Your task to perform on an android device: open app "Adobe Acrobat Reader: Edit PDF" (install if not already installed), go to login, and select forgot password Image 0: 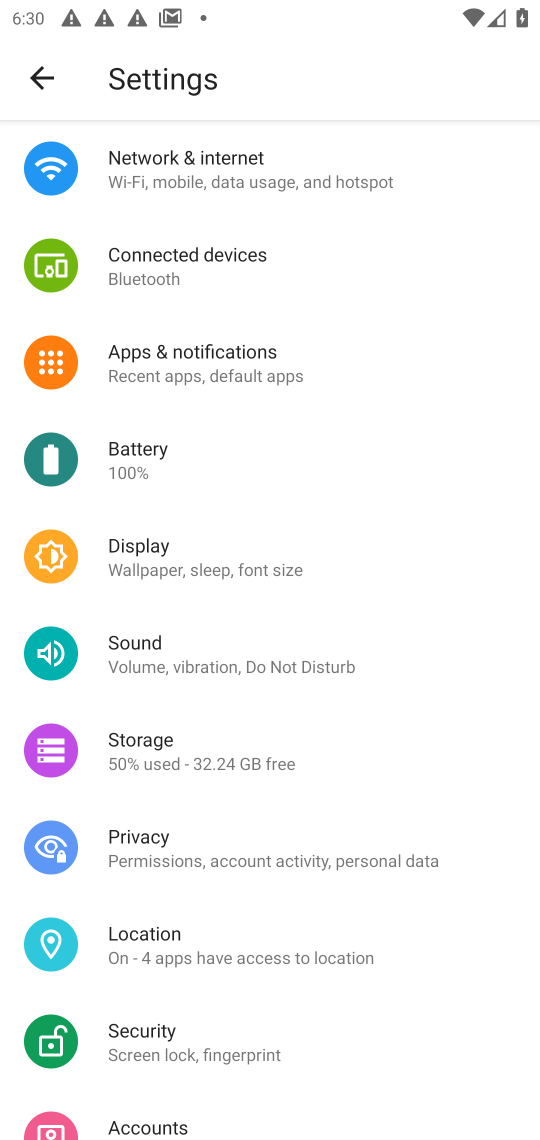
Step 0: press home button
Your task to perform on an android device: open app "Adobe Acrobat Reader: Edit PDF" (install if not already installed), go to login, and select forgot password Image 1: 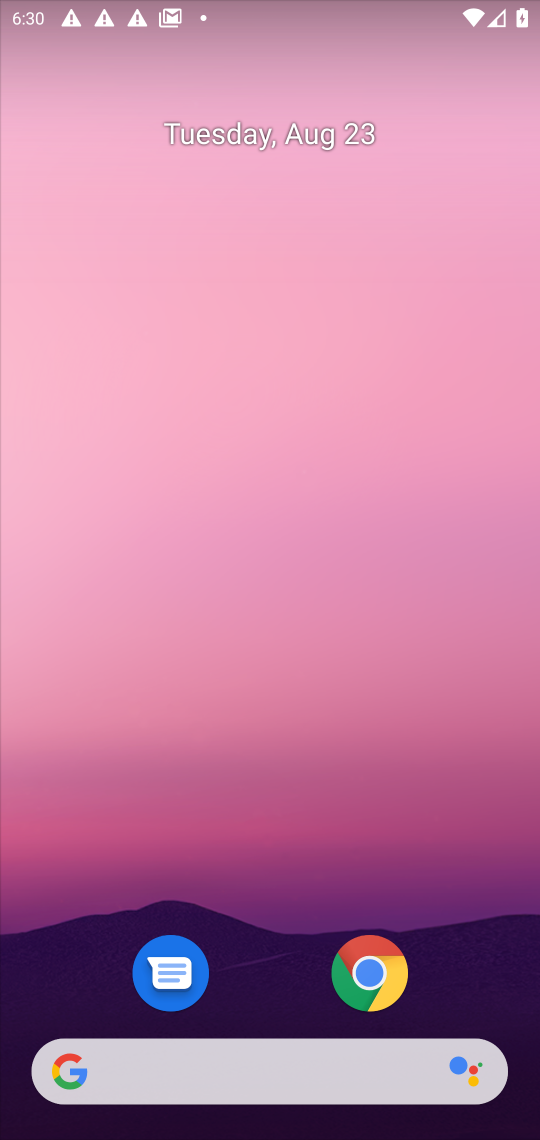
Step 1: drag from (190, 985) to (315, 27)
Your task to perform on an android device: open app "Adobe Acrobat Reader: Edit PDF" (install if not already installed), go to login, and select forgot password Image 2: 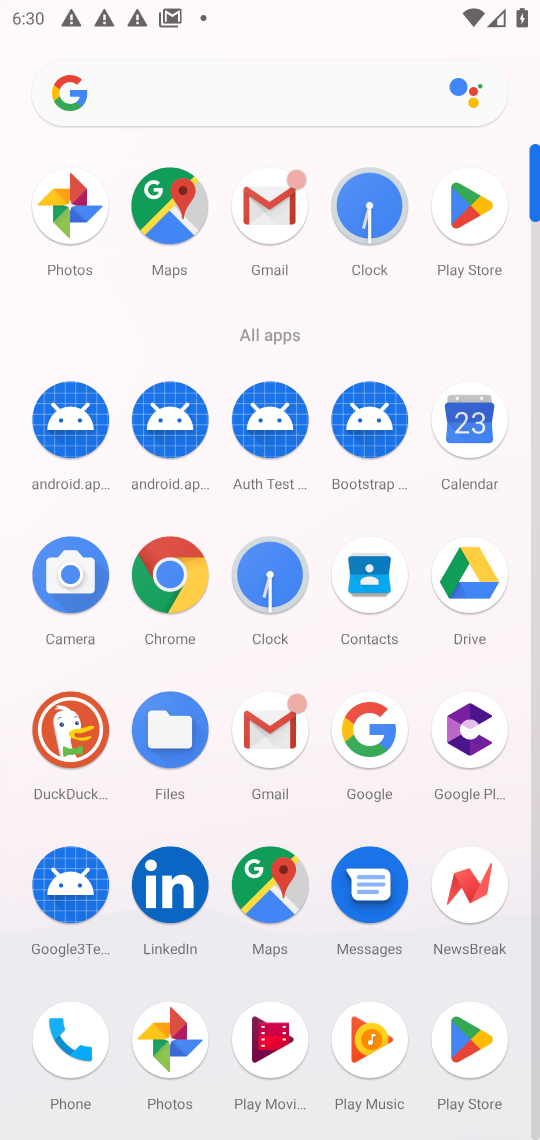
Step 2: click (472, 206)
Your task to perform on an android device: open app "Adobe Acrobat Reader: Edit PDF" (install if not already installed), go to login, and select forgot password Image 3: 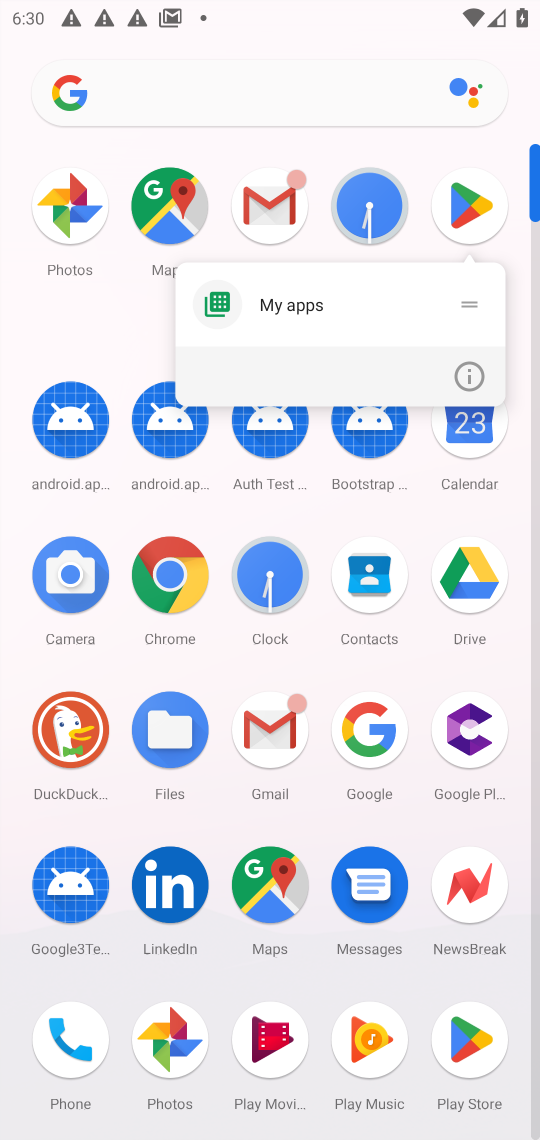
Step 3: click (472, 201)
Your task to perform on an android device: open app "Adobe Acrobat Reader: Edit PDF" (install if not already installed), go to login, and select forgot password Image 4: 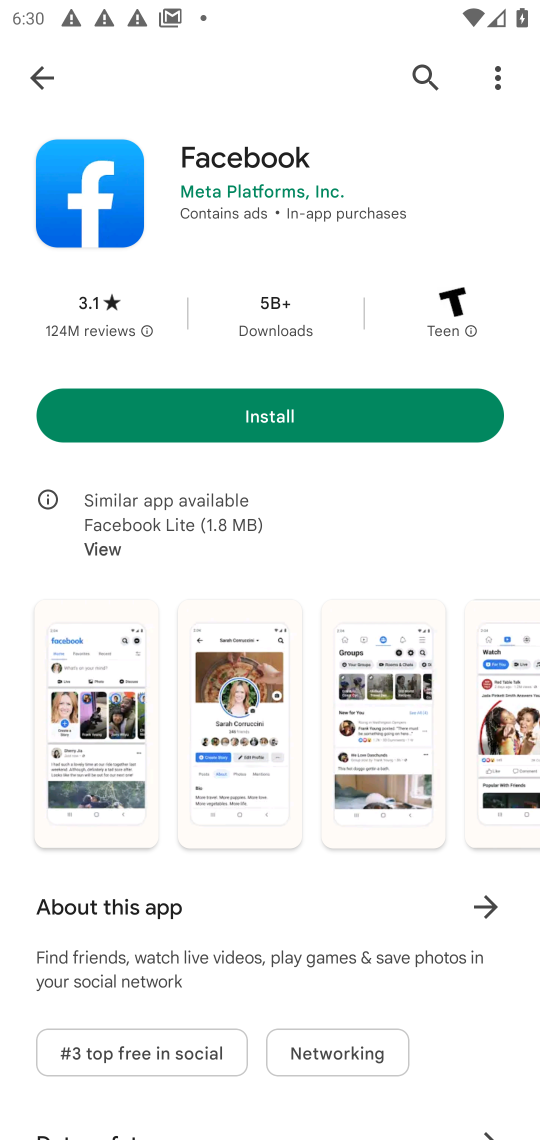
Step 4: click (411, 59)
Your task to perform on an android device: open app "Adobe Acrobat Reader: Edit PDF" (install if not already installed), go to login, and select forgot password Image 5: 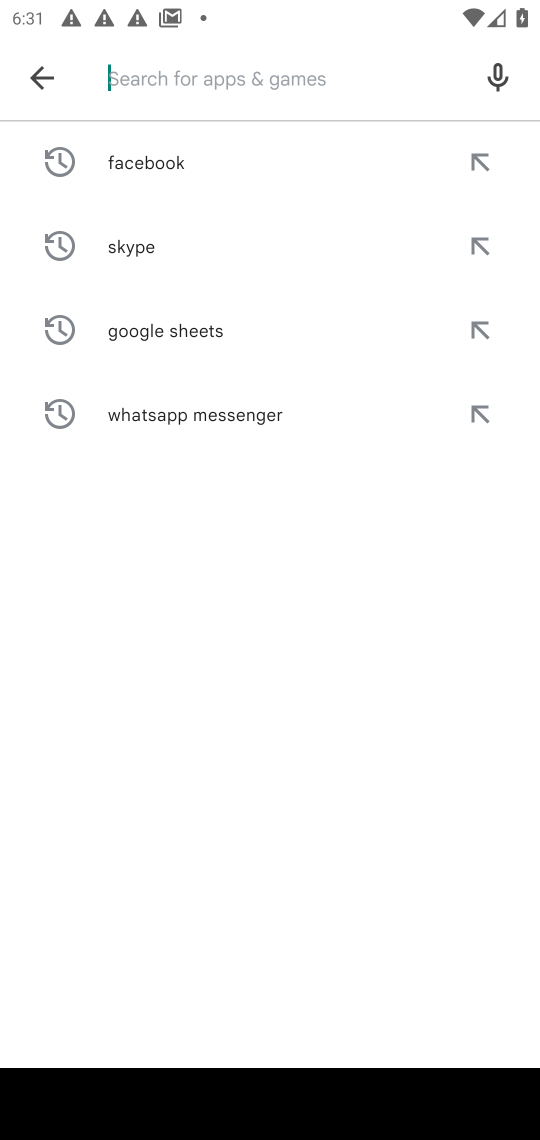
Step 5: click (147, 80)
Your task to perform on an android device: open app "Adobe Acrobat Reader: Edit PDF" (install if not already installed), go to login, and select forgot password Image 6: 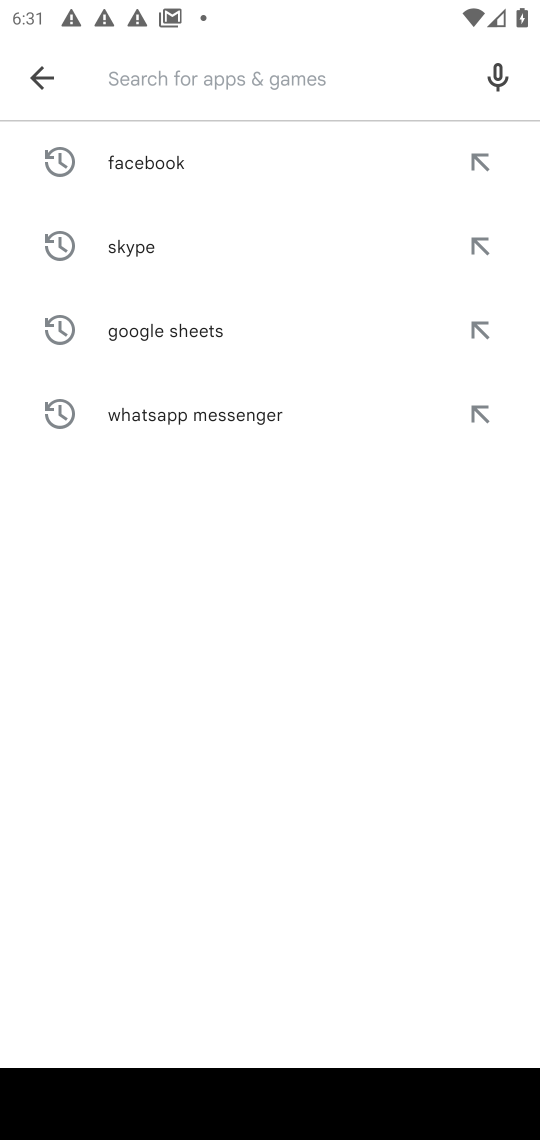
Step 6: type "Adobe Acrobat Reader"
Your task to perform on an android device: open app "Adobe Acrobat Reader: Edit PDF" (install if not already installed), go to login, and select forgot password Image 7: 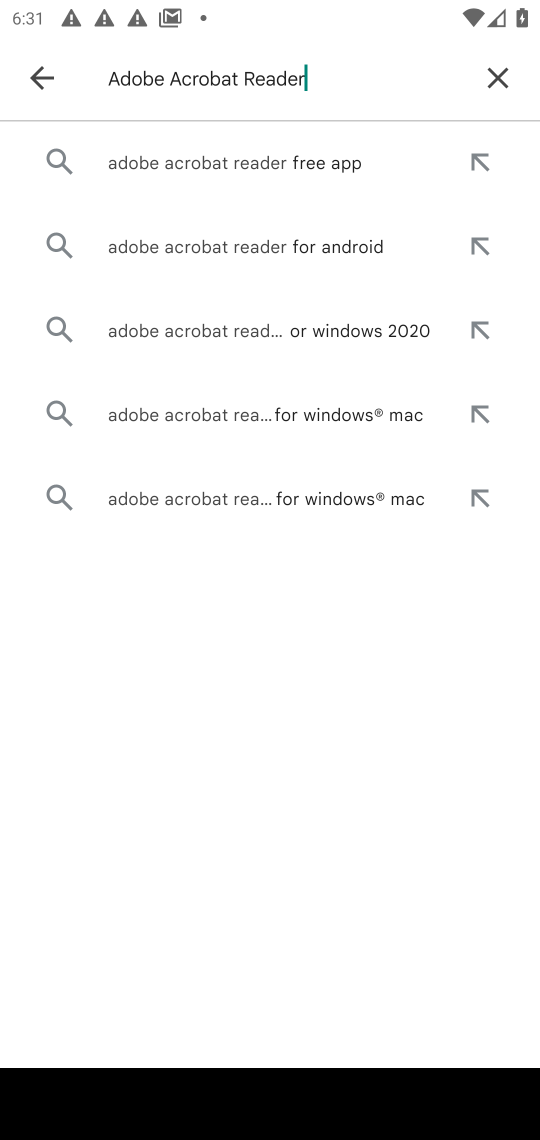
Step 7: click (290, 175)
Your task to perform on an android device: open app "Adobe Acrobat Reader: Edit PDF" (install if not already installed), go to login, and select forgot password Image 8: 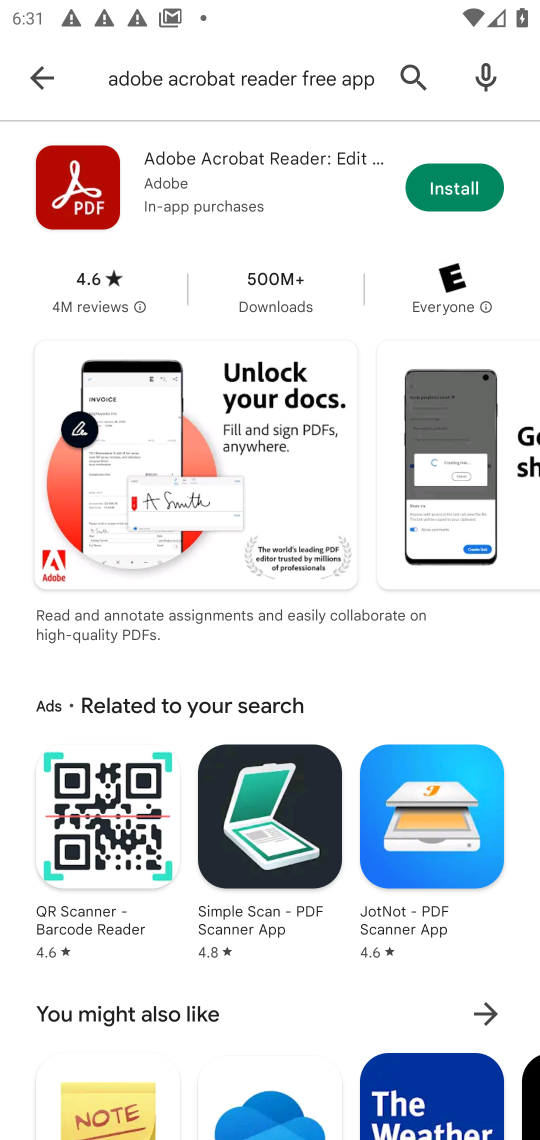
Step 8: click (455, 187)
Your task to perform on an android device: open app "Adobe Acrobat Reader: Edit PDF" (install if not already installed), go to login, and select forgot password Image 9: 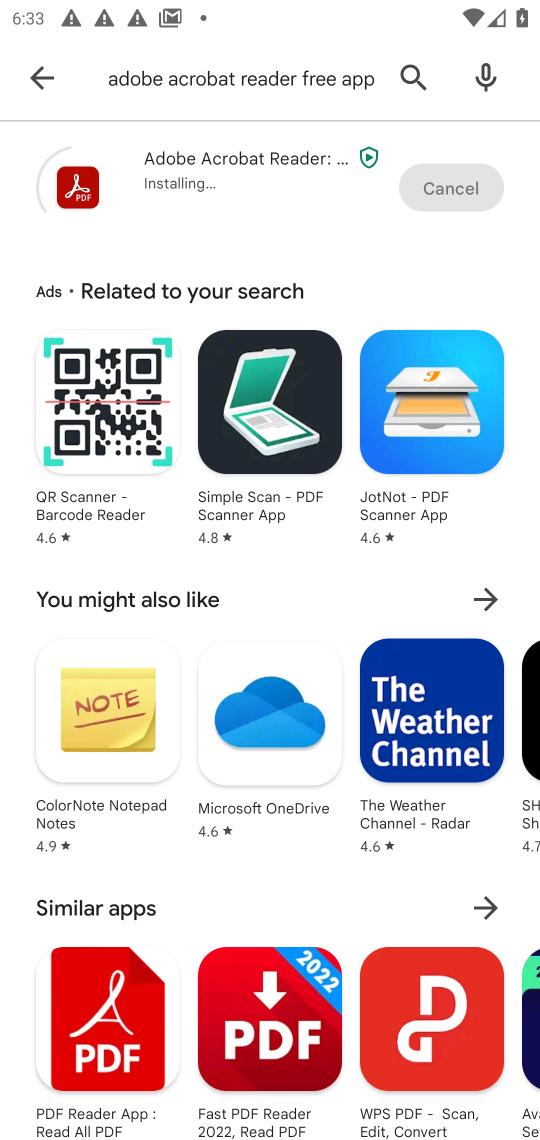
Step 9: press back button
Your task to perform on an android device: open app "Adobe Acrobat Reader: Edit PDF" (install if not already installed), go to login, and select forgot password Image 10: 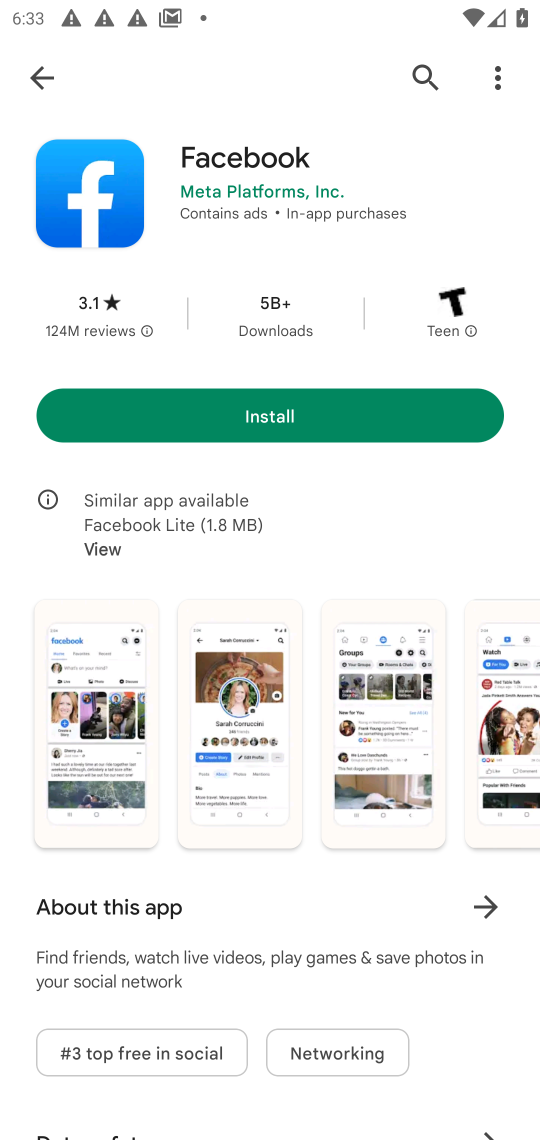
Step 10: click (413, 66)
Your task to perform on an android device: open app "Adobe Acrobat Reader: Edit PDF" (install if not already installed), go to login, and select forgot password Image 11: 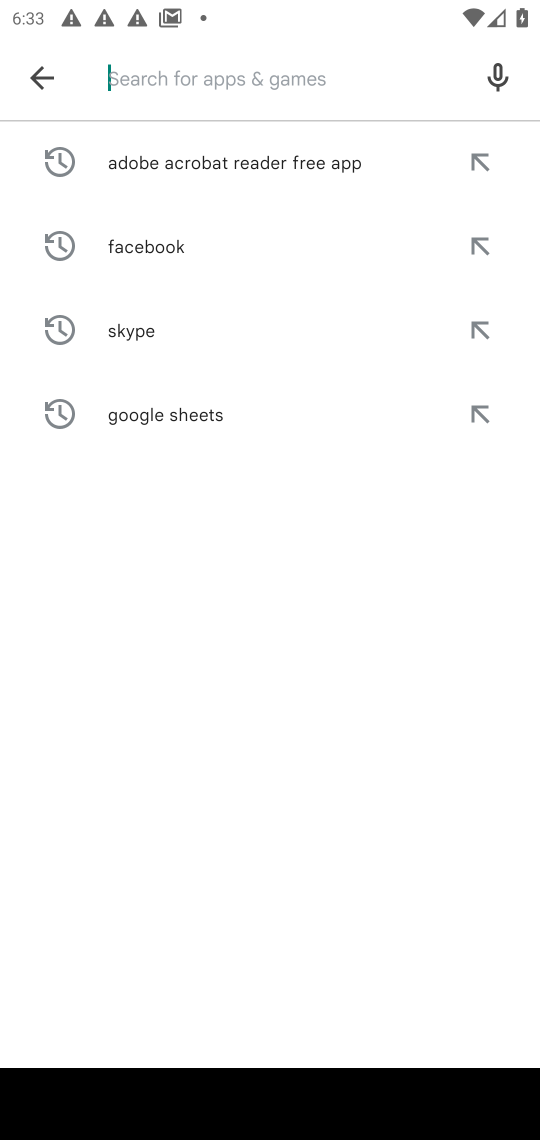
Step 11: click (209, 158)
Your task to perform on an android device: open app "Adobe Acrobat Reader: Edit PDF" (install if not already installed), go to login, and select forgot password Image 12: 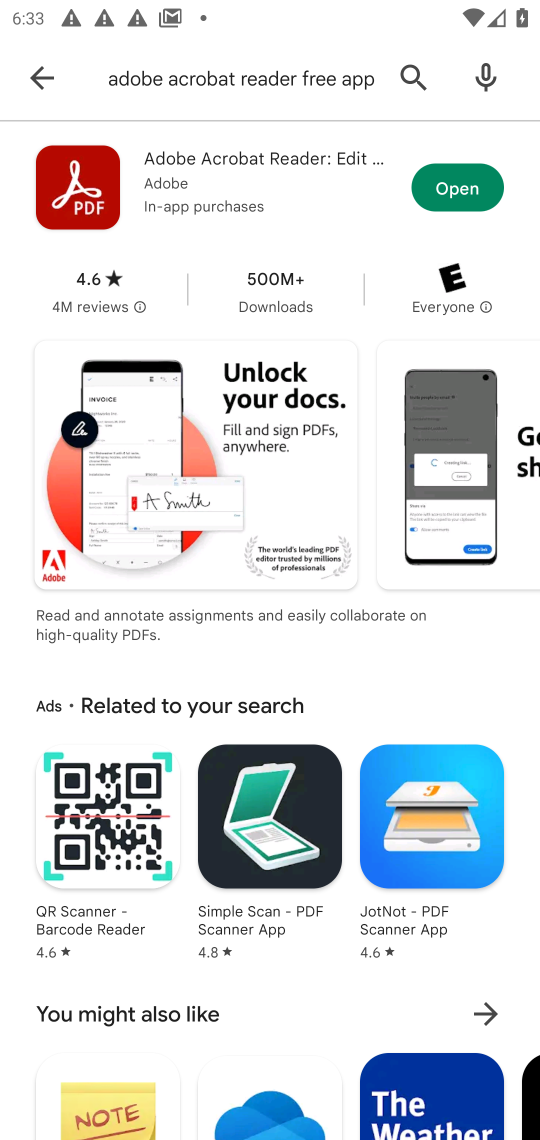
Step 12: click (471, 174)
Your task to perform on an android device: open app "Adobe Acrobat Reader: Edit PDF" (install if not already installed), go to login, and select forgot password Image 13: 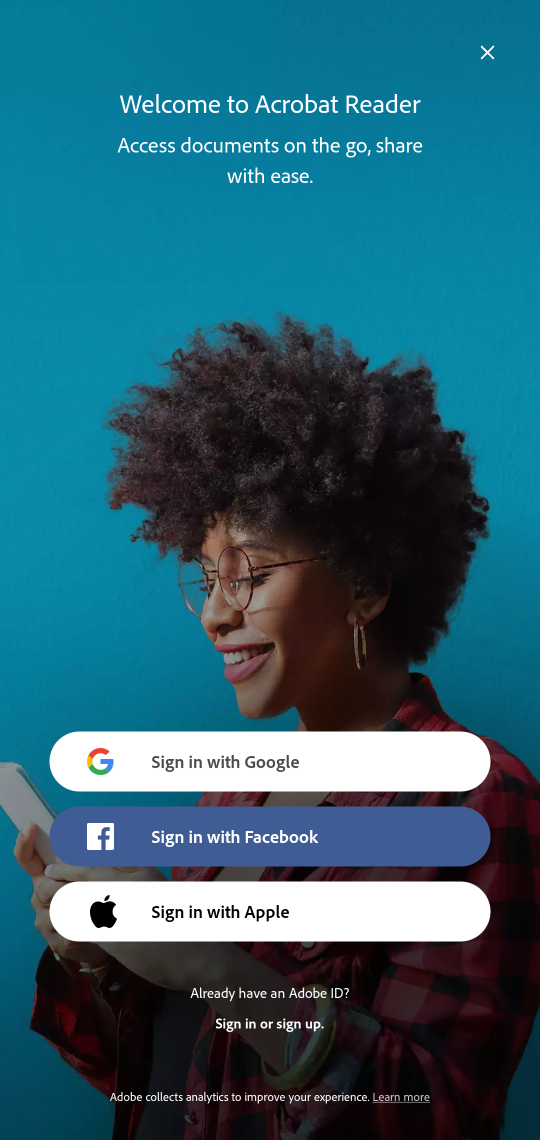
Step 13: click (298, 1024)
Your task to perform on an android device: open app "Adobe Acrobat Reader: Edit PDF" (install if not already installed), go to login, and select forgot password Image 14: 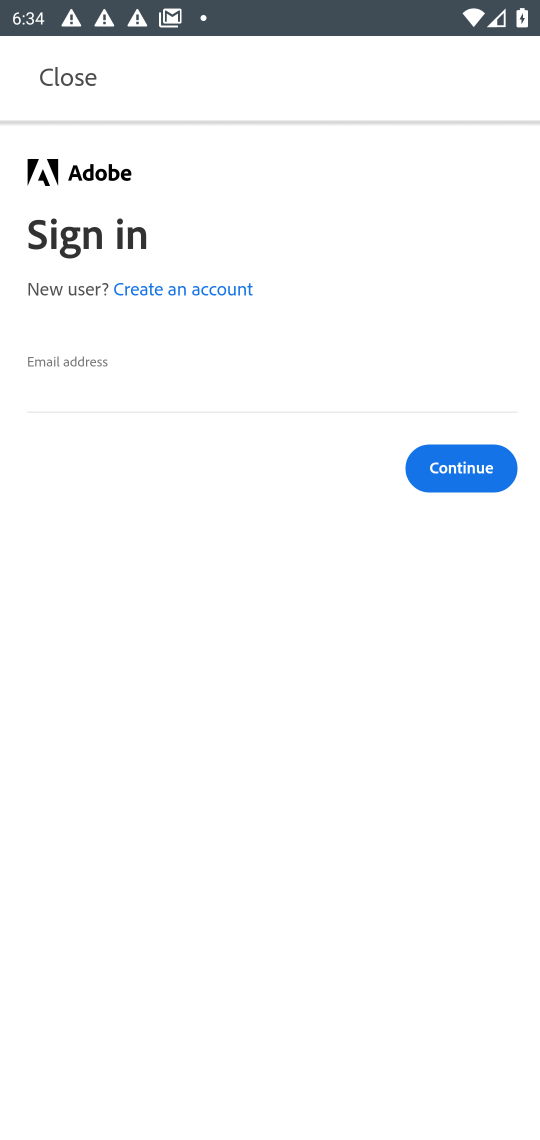
Step 14: task complete